Your task to perform on an android device: change notifications settings Image 0: 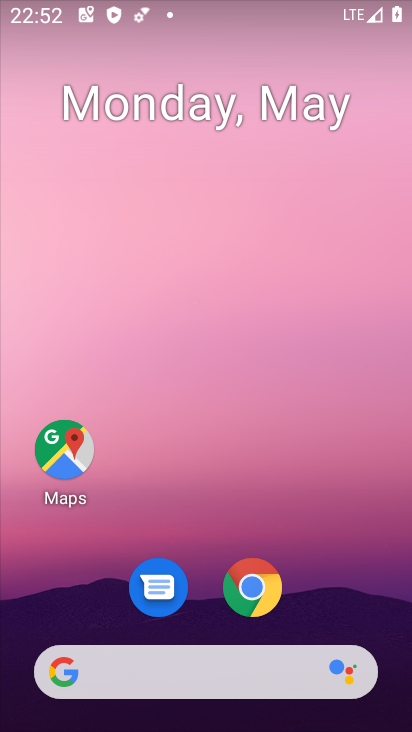
Step 0: drag from (205, 627) to (349, 44)
Your task to perform on an android device: change notifications settings Image 1: 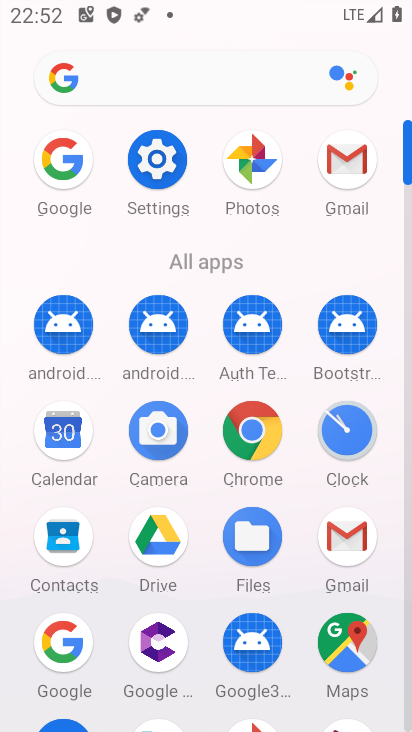
Step 1: click (155, 158)
Your task to perform on an android device: change notifications settings Image 2: 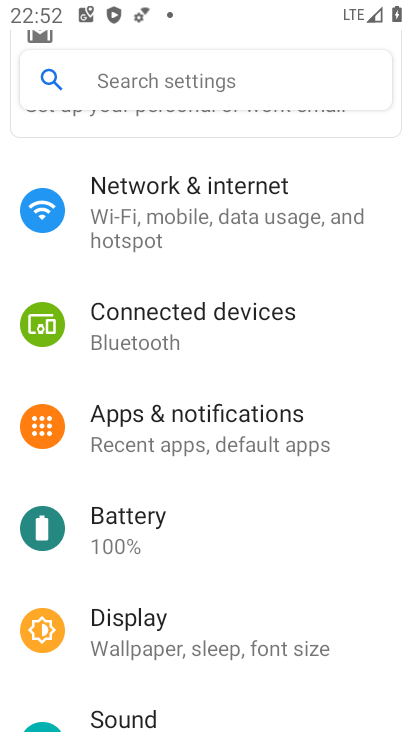
Step 2: click (198, 458)
Your task to perform on an android device: change notifications settings Image 3: 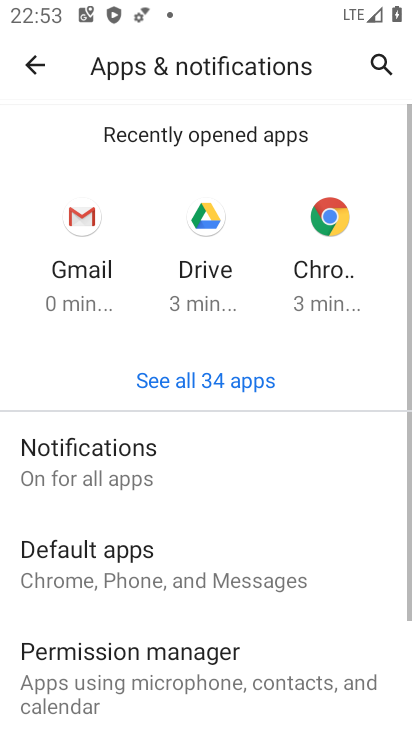
Step 3: click (122, 439)
Your task to perform on an android device: change notifications settings Image 4: 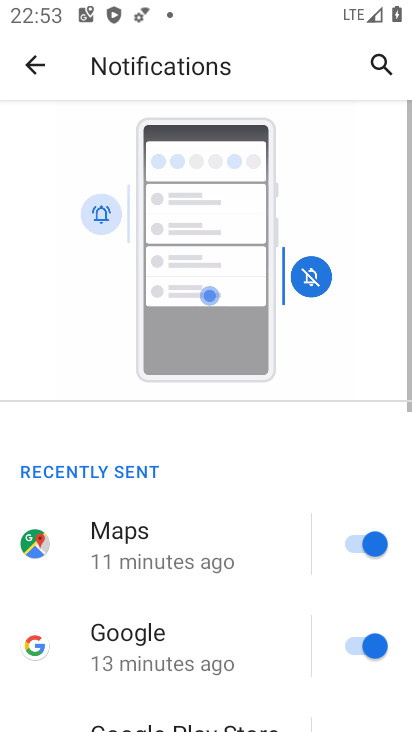
Step 4: drag from (240, 586) to (195, 51)
Your task to perform on an android device: change notifications settings Image 5: 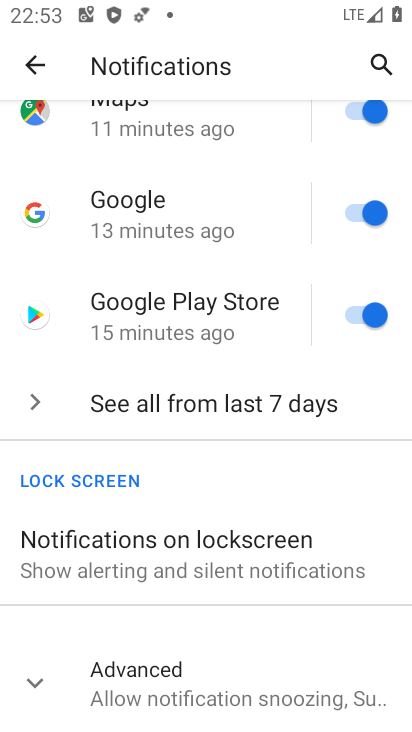
Step 5: click (225, 386)
Your task to perform on an android device: change notifications settings Image 6: 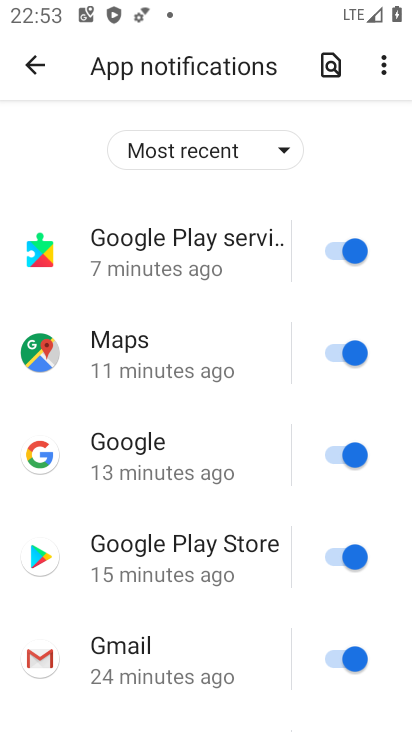
Step 6: click (200, 148)
Your task to perform on an android device: change notifications settings Image 7: 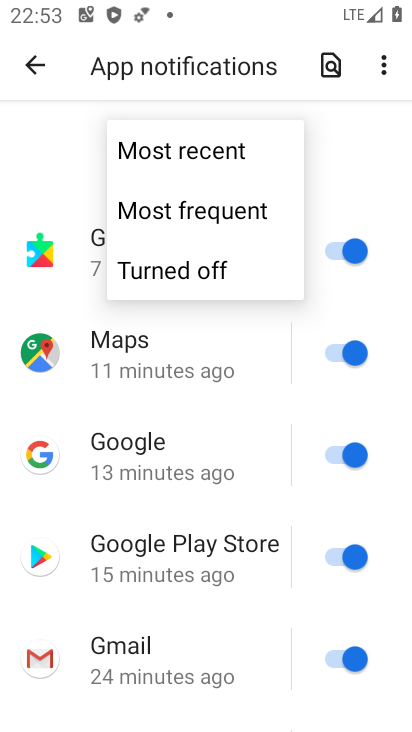
Step 7: click (223, 251)
Your task to perform on an android device: change notifications settings Image 8: 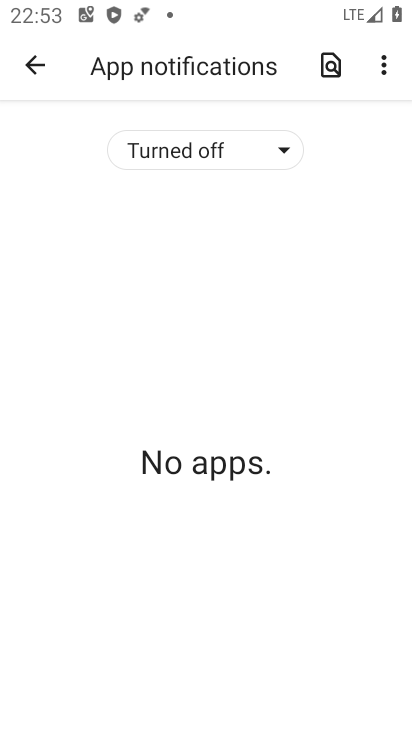
Step 8: task complete